Your task to perform on an android device: What's the weather going to be tomorrow? Image 0: 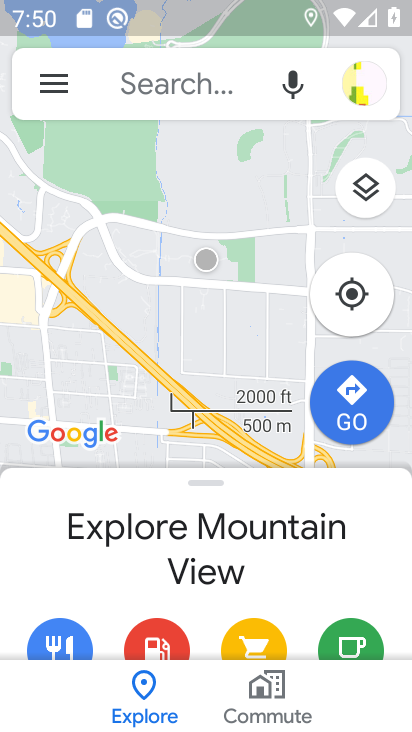
Step 0: press home button
Your task to perform on an android device: What's the weather going to be tomorrow? Image 1: 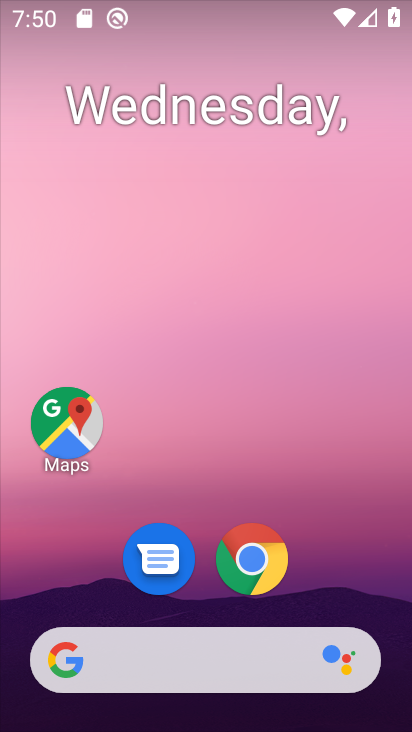
Step 1: drag from (352, 479) to (352, 144)
Your task to perform on an android device: What's the weather going to be tomorrow? Image 2: 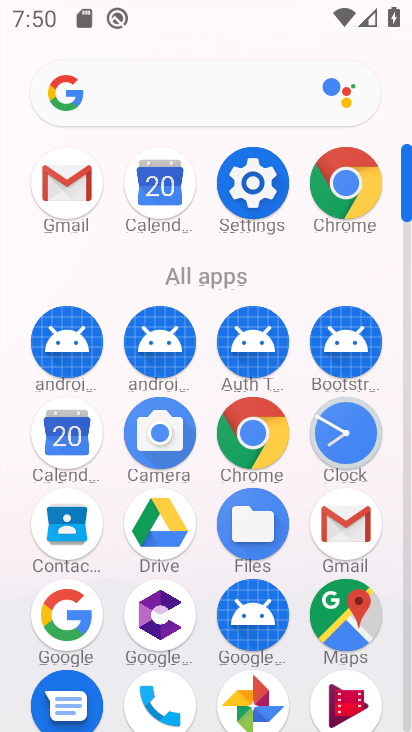
Step 2: click (251, 443)
Your task to perform on an android device: What's the weather going to be tomorrow? Image 3: 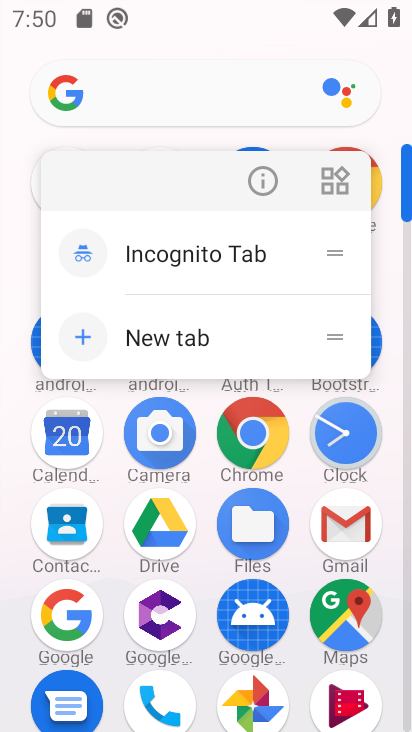
Step 3: click (251, 443)
Your task to perform on an android device: What's the weather going to be tomorrow? Image 4: 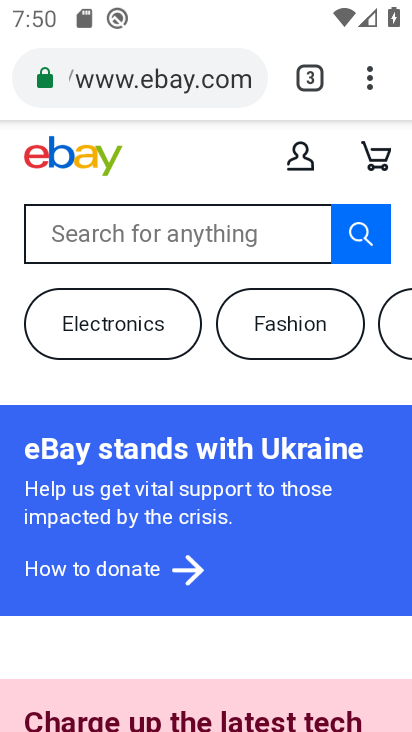
Step 4: click (218, 83)
Your task to perform on an android device: What's the weather going to be tomorrow? Image 5: 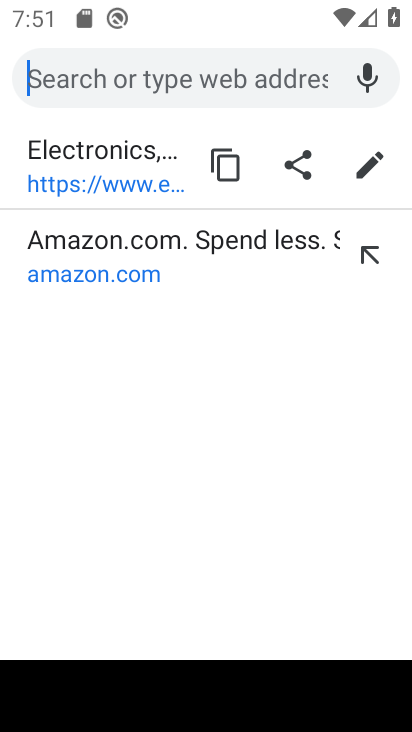
Step 5: type "what's the weather going to be tomorrow"
Your task to perform on an android device: What's the weather going to be tomorrow? Image 6: 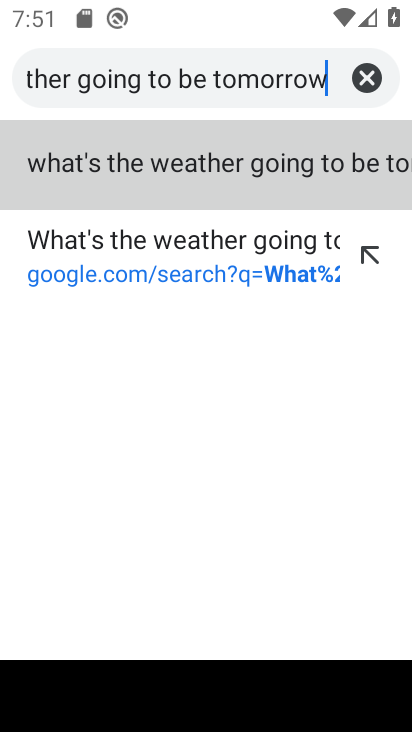
Step 6: click (199, 182)
Your task to perform on an android device: What's the weather going to be tomorrow? Image 7: 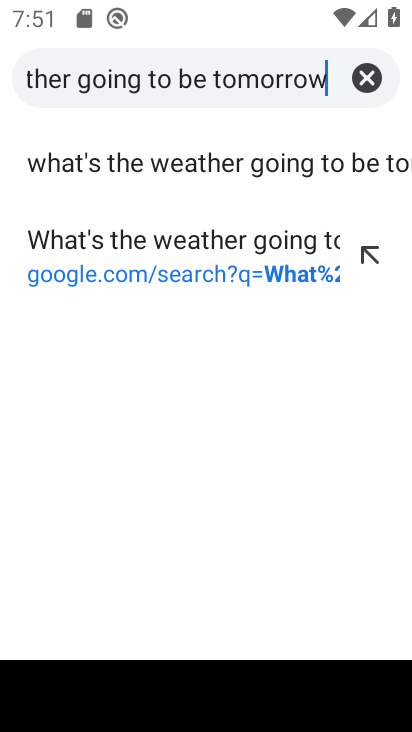
Step 7: click (197, 172)
Your task to perform on an android device: What's the weather going to be tomorrow? Image 8: 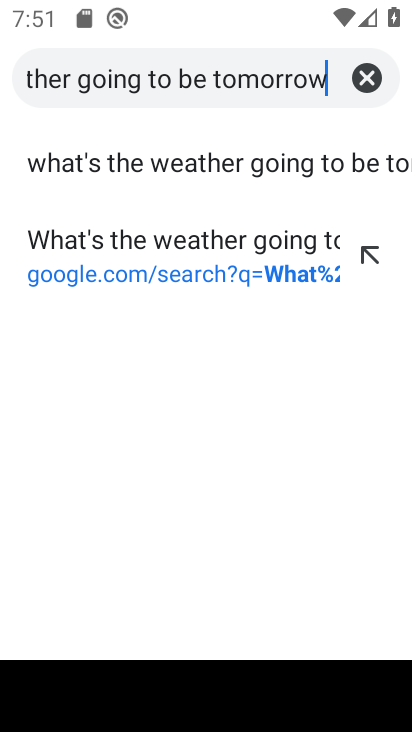
Step 8: click (203, 172)
Your task to perform on an android device: What's the weather going to be tomorrow? Image 9: 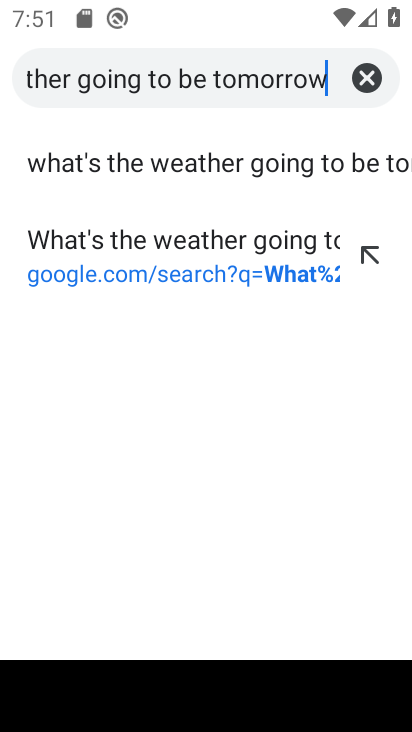
Step 9: click (196, 155)
Your task to perform on an android device: What's the weather going to be tomorrow? Image 10: 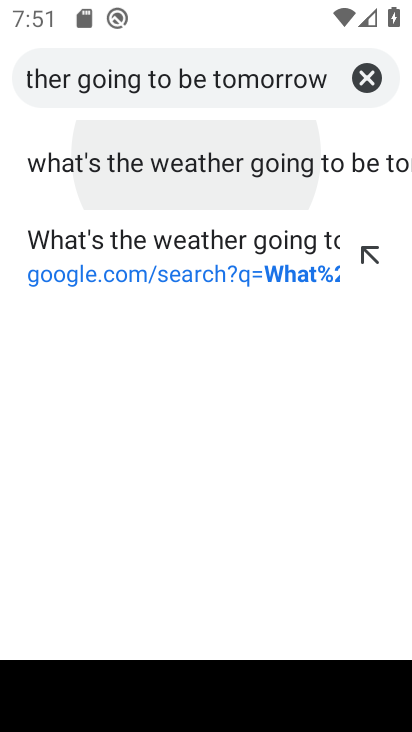
Step 10: click (193, 164)
Your task to perform on an android device: What's the weather going to be tomorrow? Image 11: 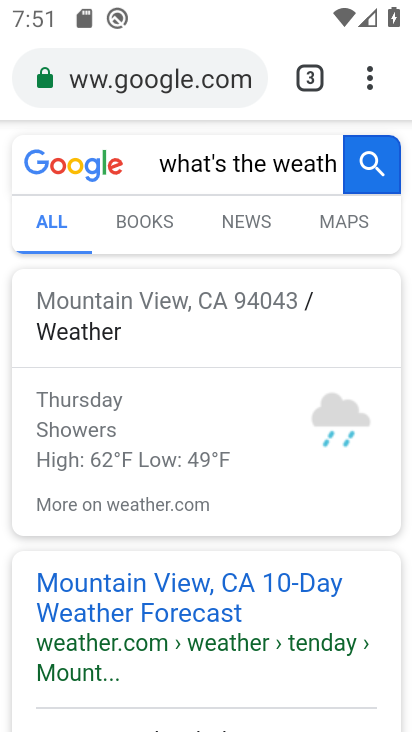
Step 11: task complete